Your task to perform on an android device: check out phone information Image 0: 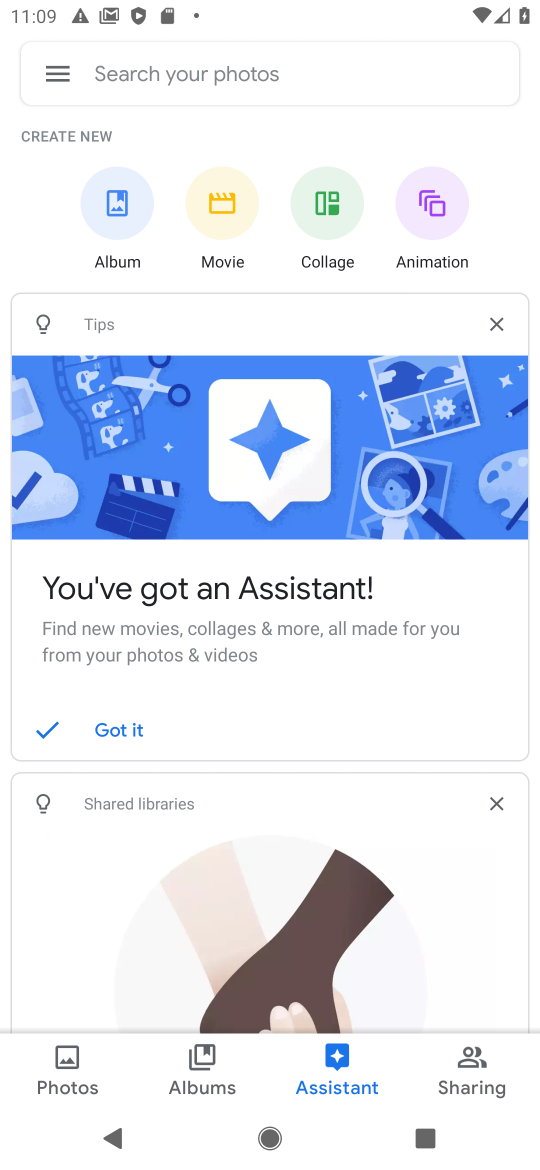
Step 0: press home button
Your task to perform on an android device: check out phone information Image 1: 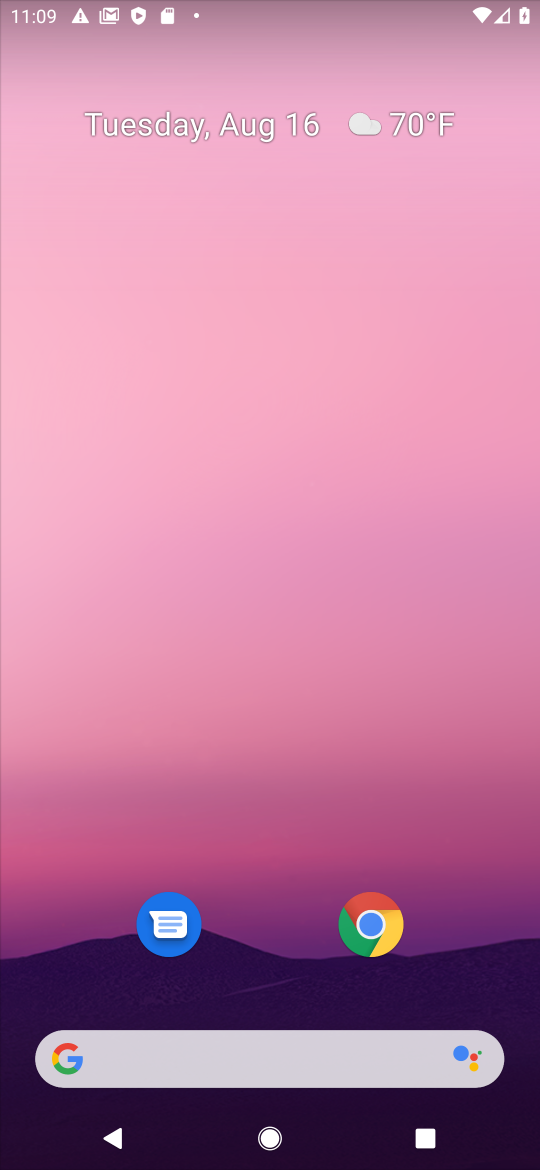
Step 1: drag from (234, 854) to (283, 142)
Your task to perform on an android device: check out phone information Image 2: 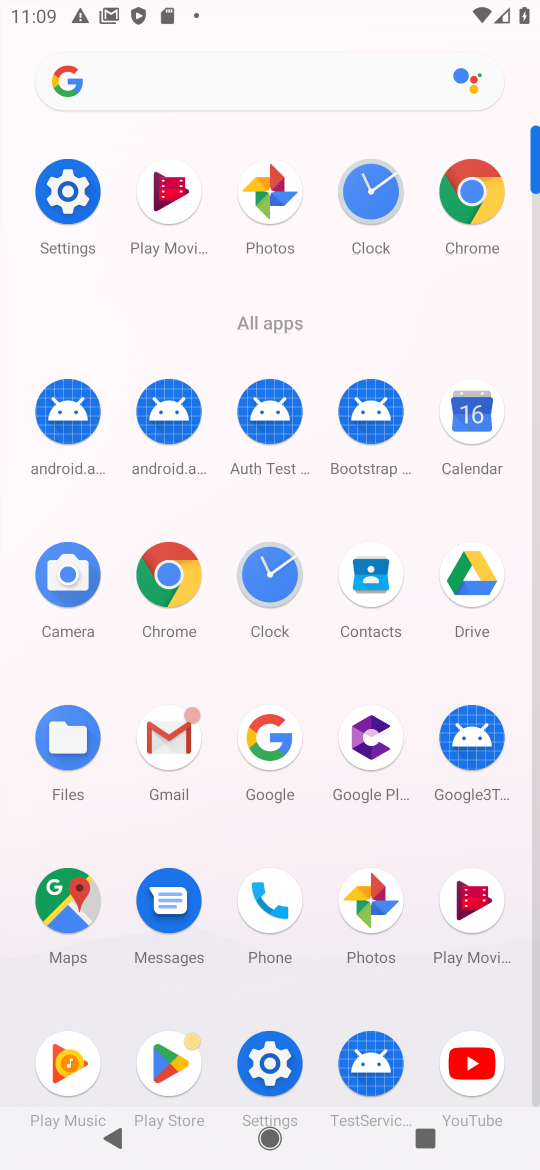
Step 2: click (47, 200)
Your task to perform on an android device: check out phone information Image 3: 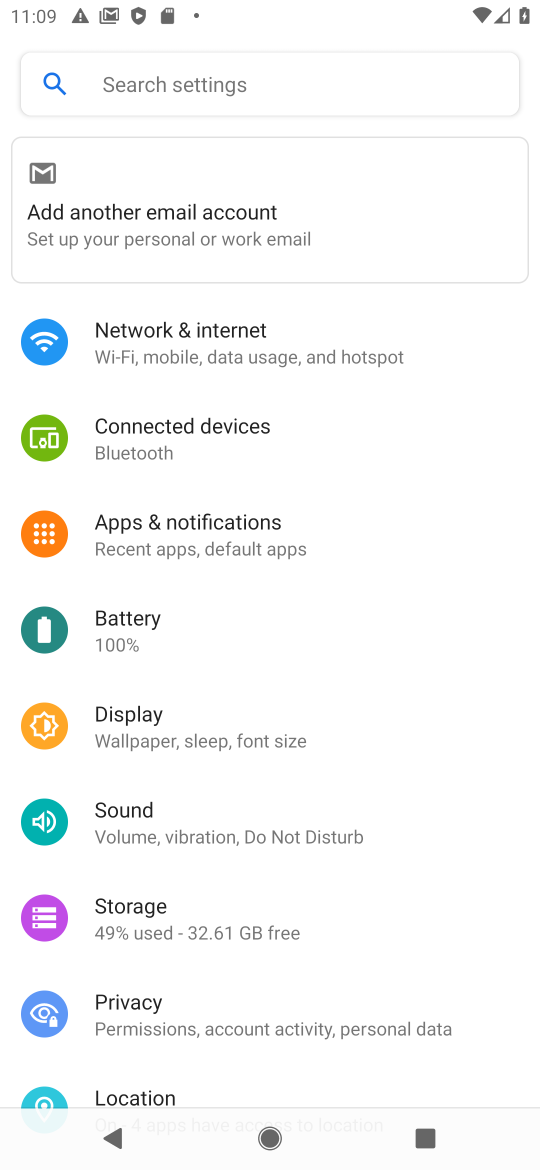
Step 3: drag from (169, 1071) to (169, 193)
Your task to perform on an android device: check out phone information Image 4: 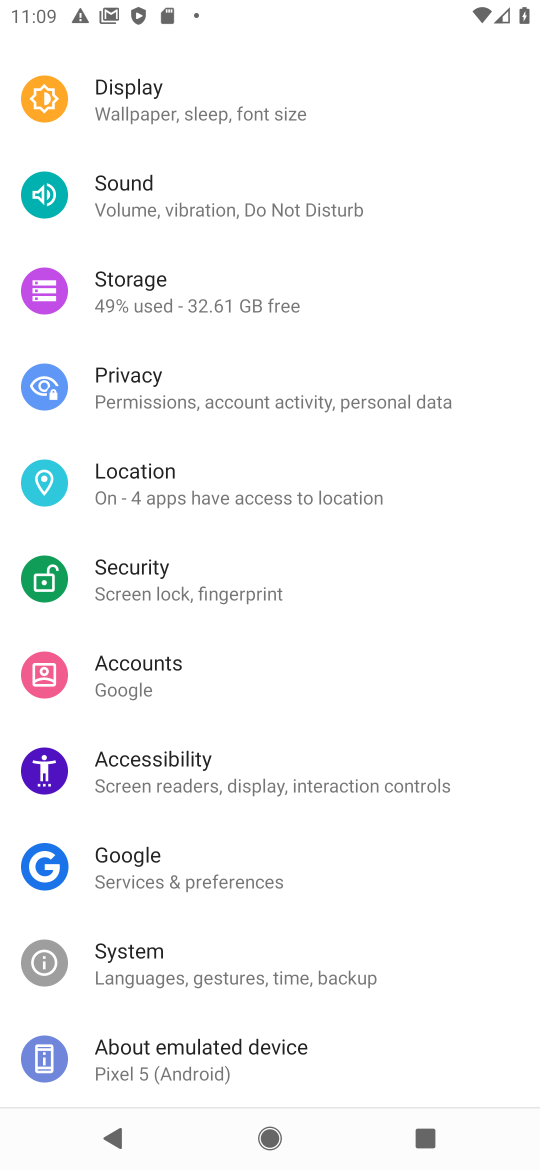
Step 4: drag from (150, 1077) to (276, 231)
Your task to perform on an android device: check out phone information Image 5: 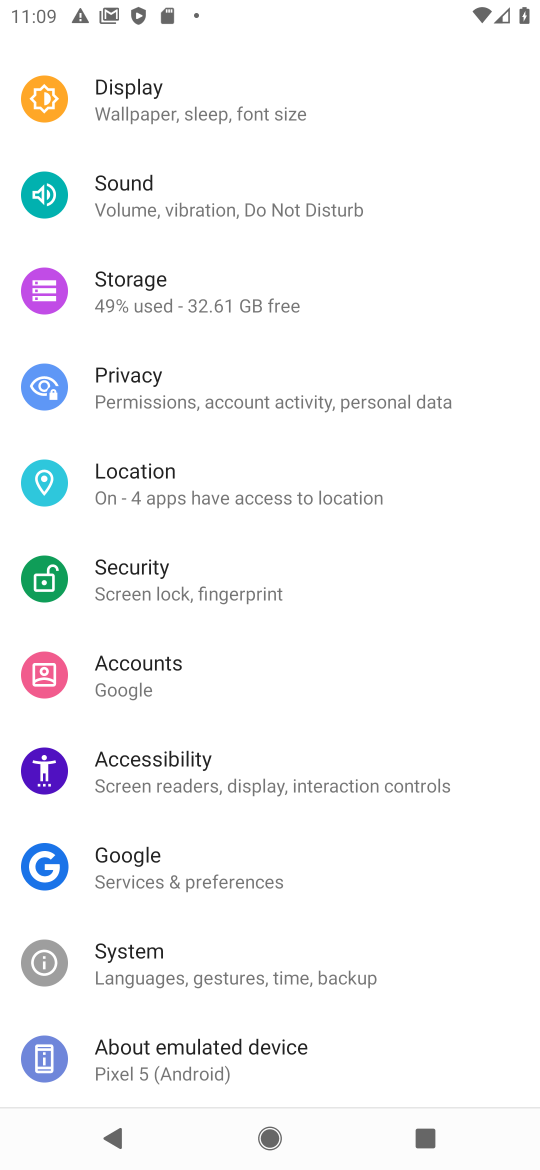
Step 5: click (258, 1040)
Your task to perform on an android device: check out phone information Image 6: 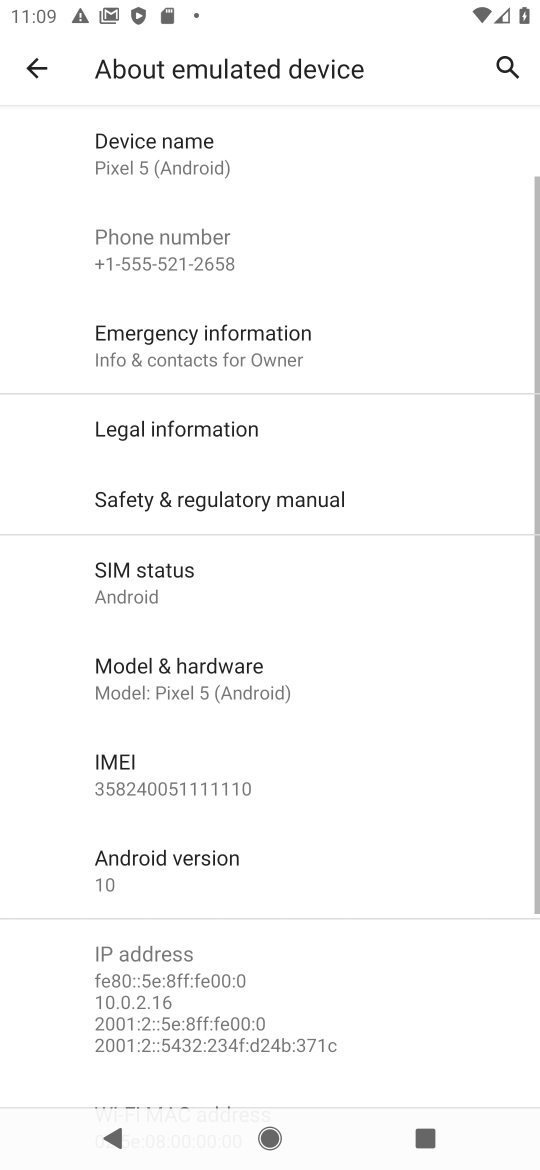
Step 6: task complete